Your task to perform on an android device: turn off improve location accuracy Image 0: 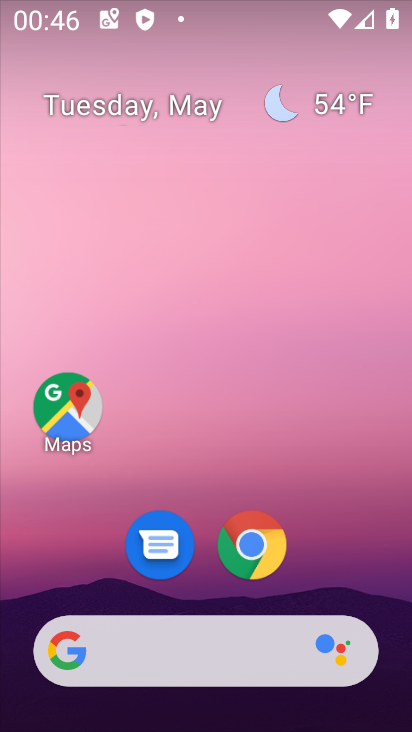
Step 0: drag from (370, 590) to (385, 176)
Your task to perform on an android device: turn off improve location accuracy Image 1: 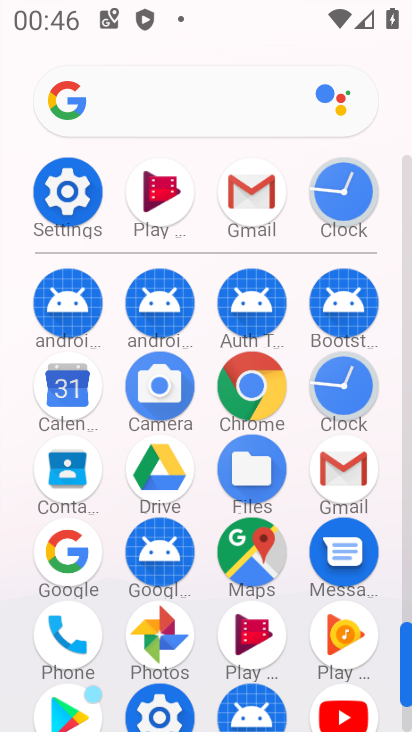
Step 1: click (85, 198)
Your task to perform on an android device: turn off improve location accuracy Image 2: 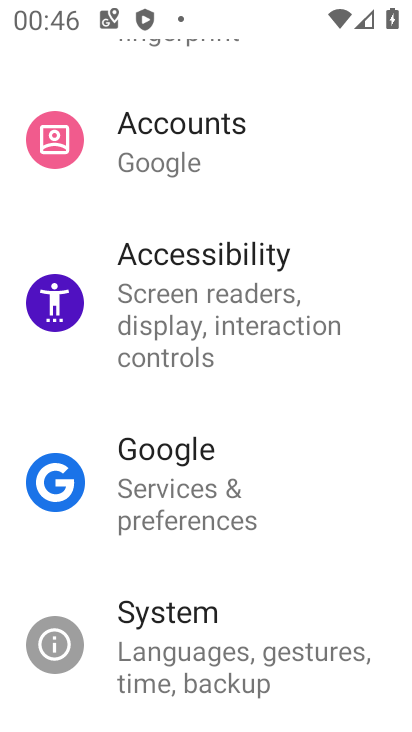
Step 2: drag from (243, 274) to (211, 642)
Your task to perform on an android device: turn off improve location accuracy Image 3: 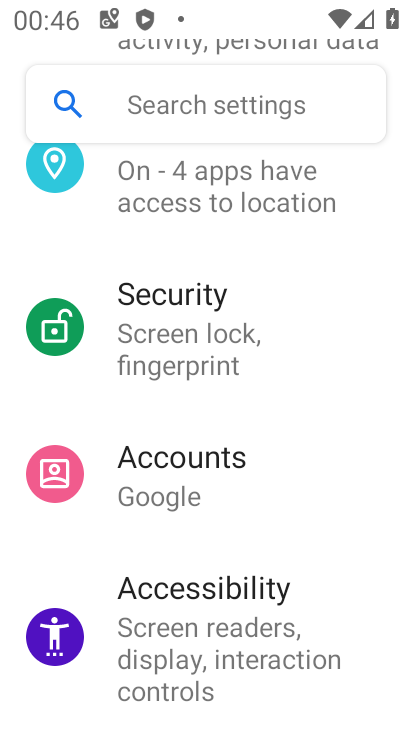
Step 3: click (178, 197)
Your task to perform on an android device: turn off improve location accuracy Image 4: 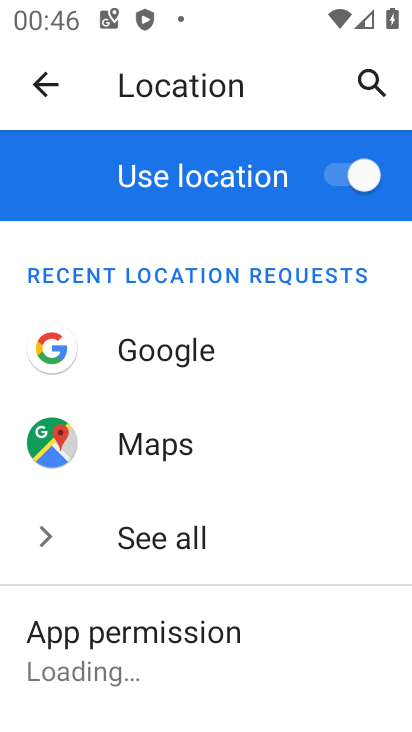
Step 4: drag from (211, 603) to (224, 324)
Your task to perform on an android device: turn off improve location accuracy Image 5: 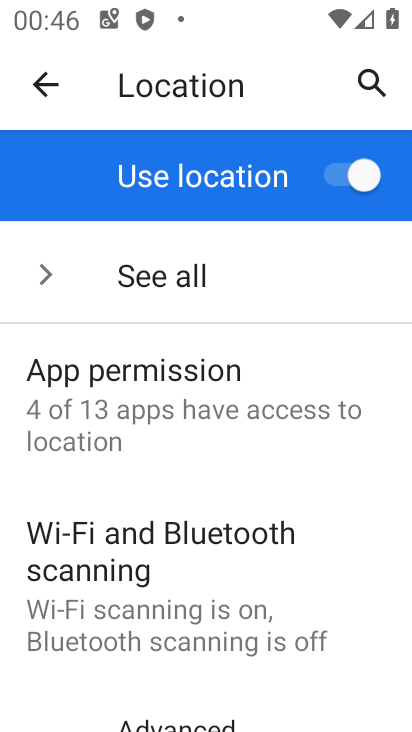
Step 5: drag from (236, 660) to (214, 410)
Your task to perform on an android device: turn off improve location accuracy Image 6: 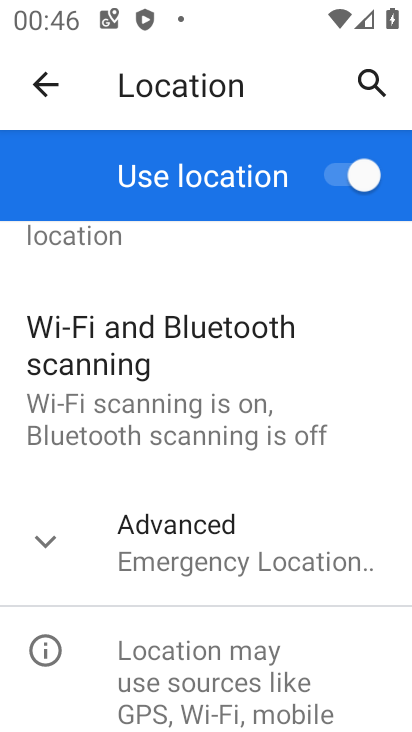
Step 6: click (221, 594)
Your task to perform on an android device: turn off improve location accuracy Image 7: 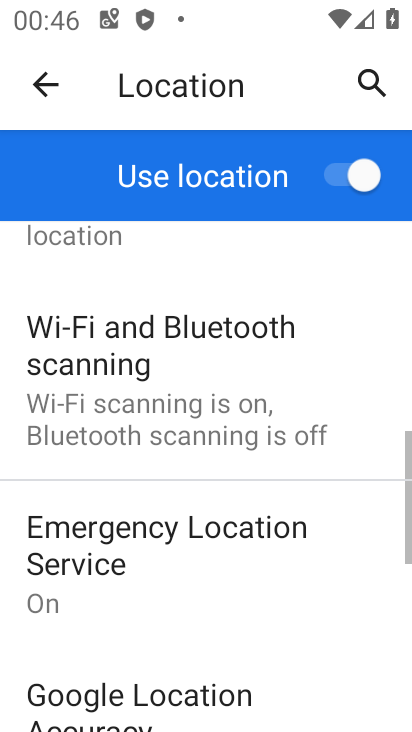
Step 7: drag from (231, 629) to (204, 331)
Your task to perform on an android device: turn off improve location accuracy Image 8: 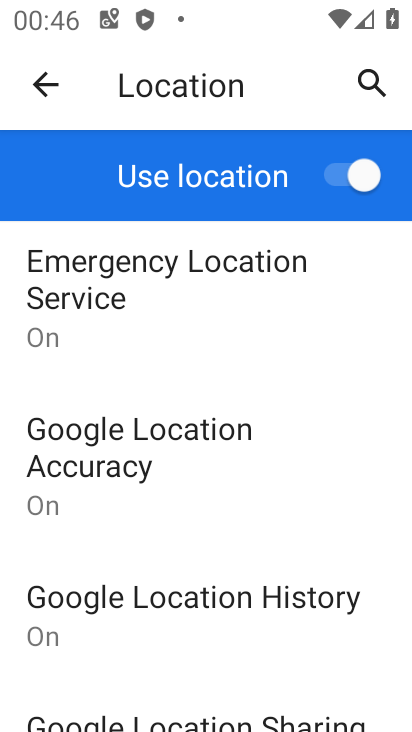
Step 8: click (193, 465)
Your task to perform on an android device: turn off improve location accuracy Image 9: 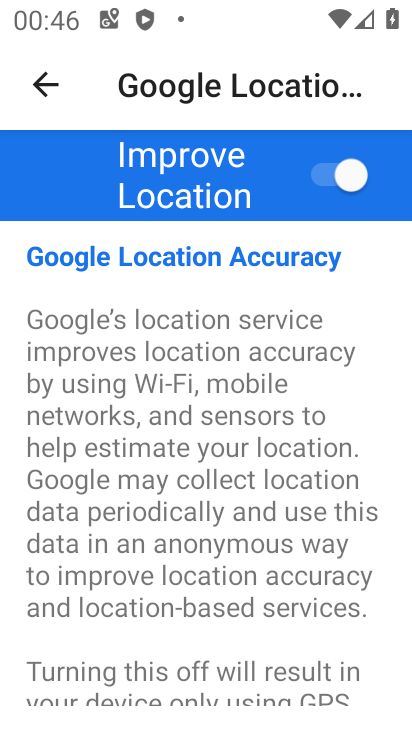
Step 9: click (345, 155)
Your task to perform on an android device: turn off improve location accuracy Image 10: 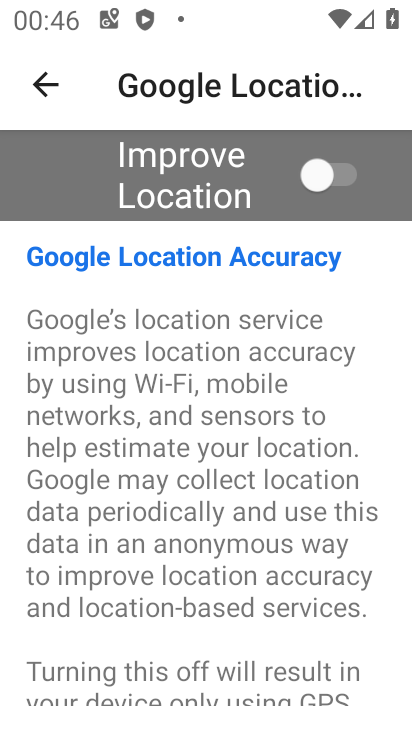
Step 10: task complete